Your task to perform on an android device: Go to accessibility settings Image 0: 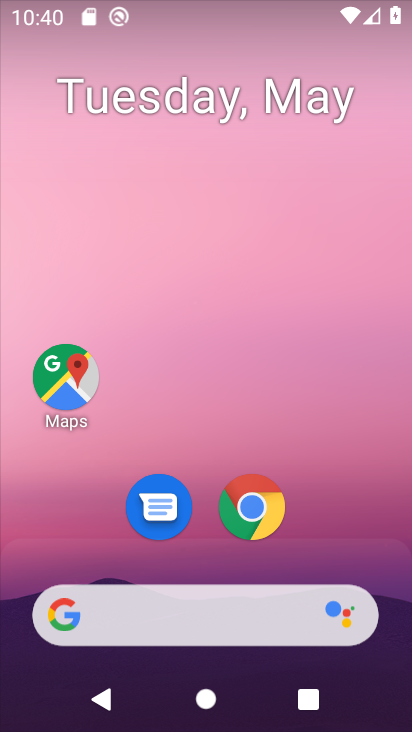
Step 0: drag from (224, 603) to (110, 191)
Your task to perform on an android device: Go to accessibility settings Image 1: 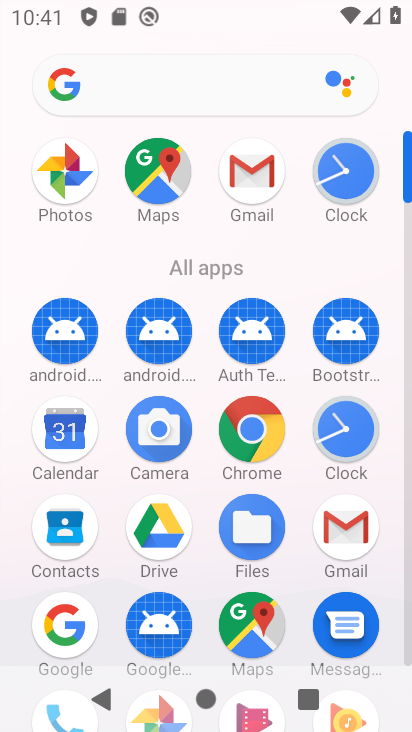
Step 1: drag from (194, 498) to (197, 349)
Your task to perform on an android device: Go to accessibility settings Image 2: 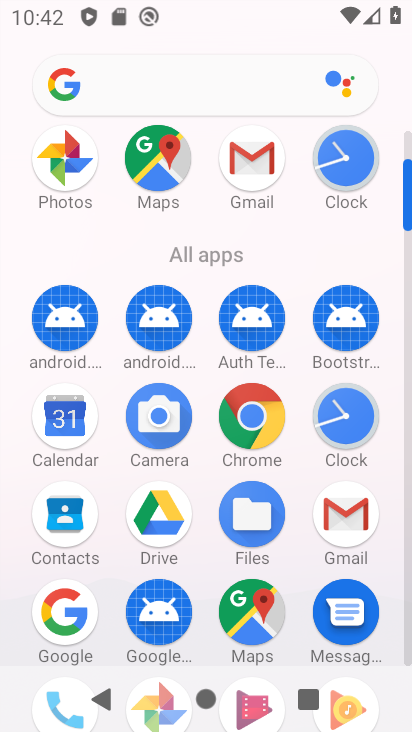
Step 2: drag from (195, 563) to (137, 135)
Your task to perform on an android device: Go to accessibility settings Image 3: 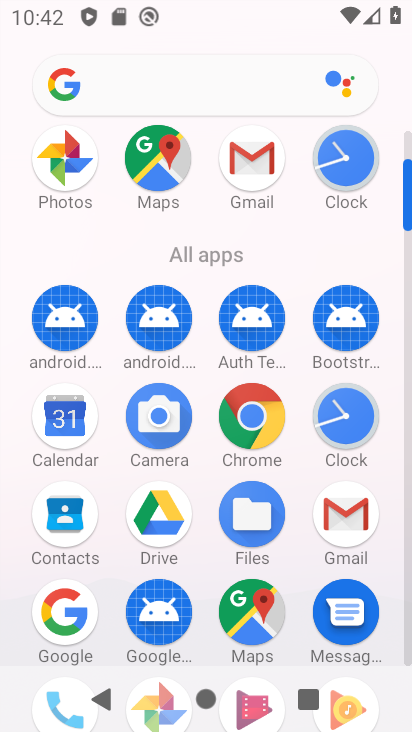
Step 3: drag from (212, 533) to (182, 104)
Your task to perform on an android device: Go to accessibility settings Image 4: 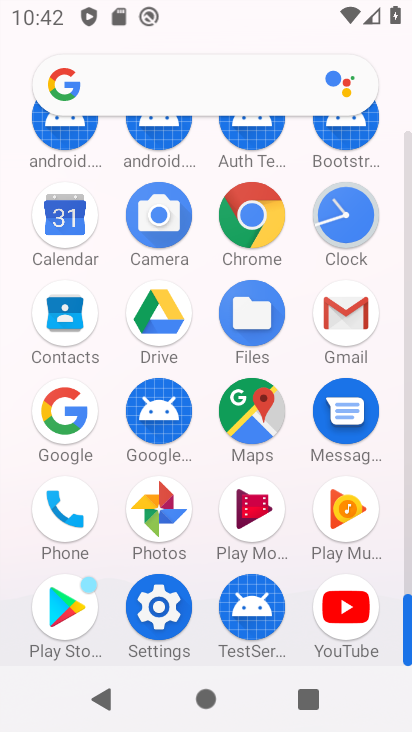
Step 4: click (169, 615)
Your task to perform on an android device: Go to accessibility settings Image 5: 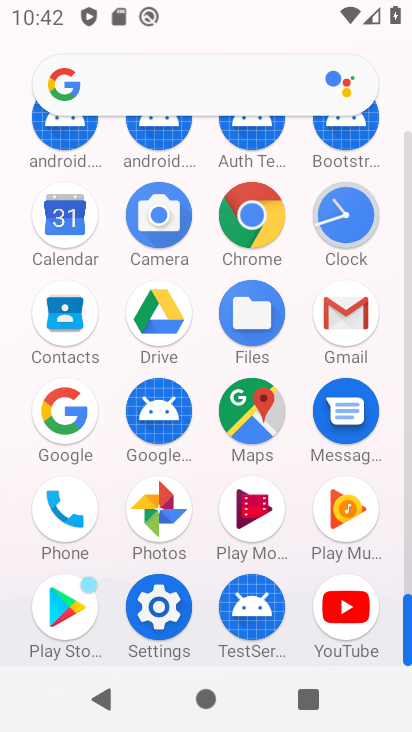
Step 5: click (169, 615)
Your task to perform on an android device: Go to accessibility settings Image 6: 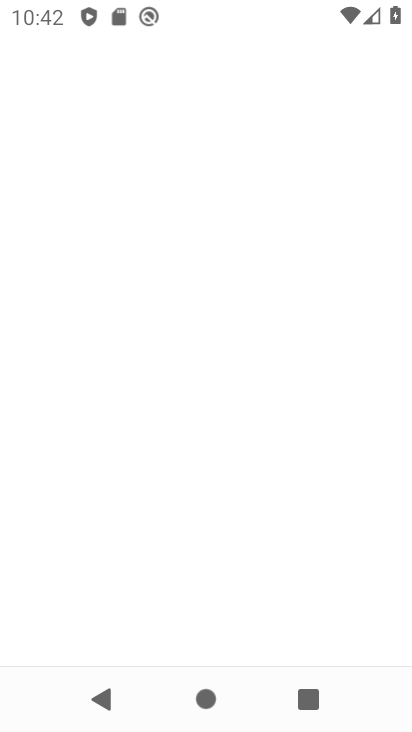
Step 6: click (142, 598)
Your task to perform on an android device: Go to accessibility settings Image 7: 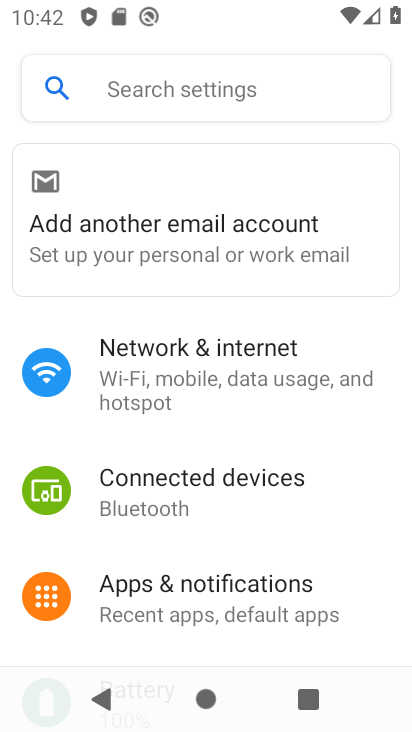
Step 7: drag from (199, 587) to (183, 223)
Your task to perform on an android device: Go to accessibility settings Image 8: 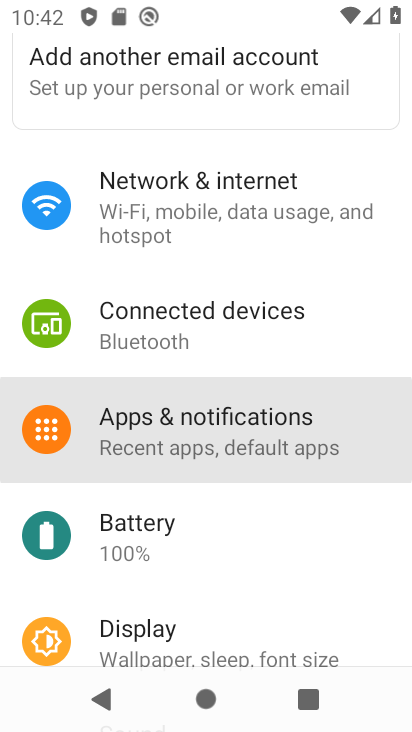
Step 8: drag from (183, 420) to (161, 169)
Your task to perform on an android device: Go to accessibility settings Image 9: 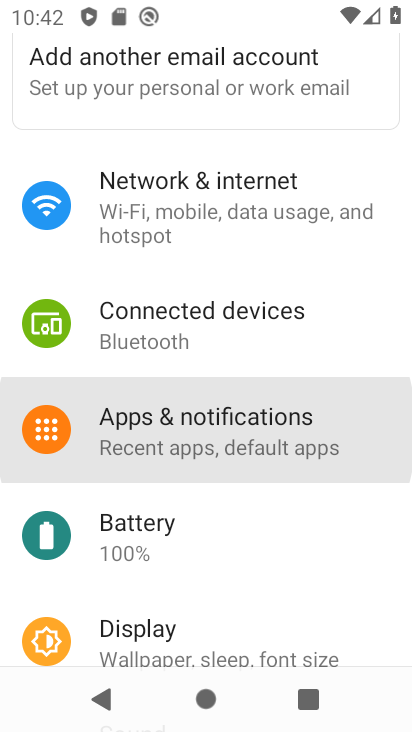
Step 9: drag from (164, 423) to (182, 181)
Your task to perform on an android device: Go to accessibility settings Image 10: 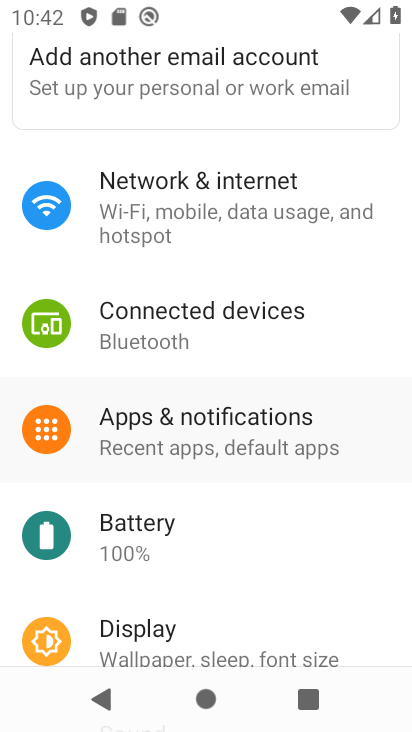
Step 10: drag from (171, 285) to (171, 196)
Your task to perform on an android device: Go to accessibility settings Image 11: 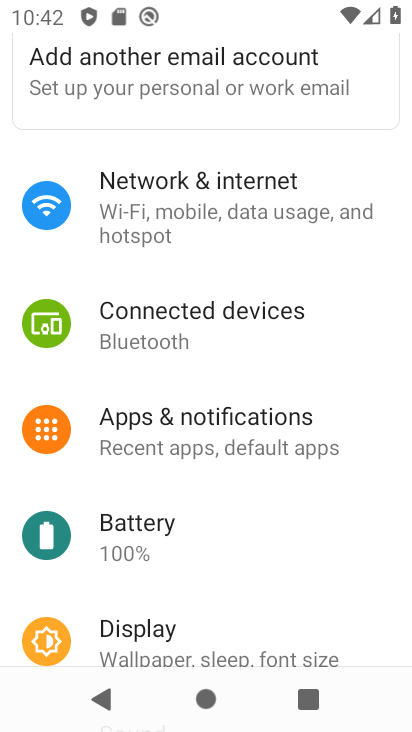
Step 11: drag from (176, 544) to (194, 249)
Your task to perform on an android device: Go to accessibility settings Image 12: 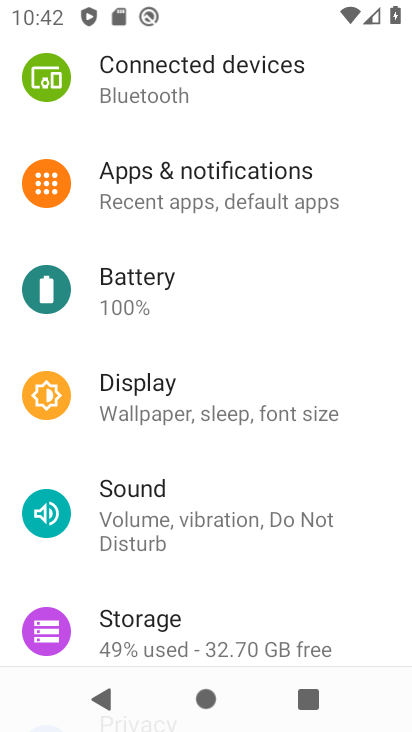
Step 12: drag from (201, 434) to (231, 215)
Your task to perform on an android device: Go to accessibility settings Image 13: 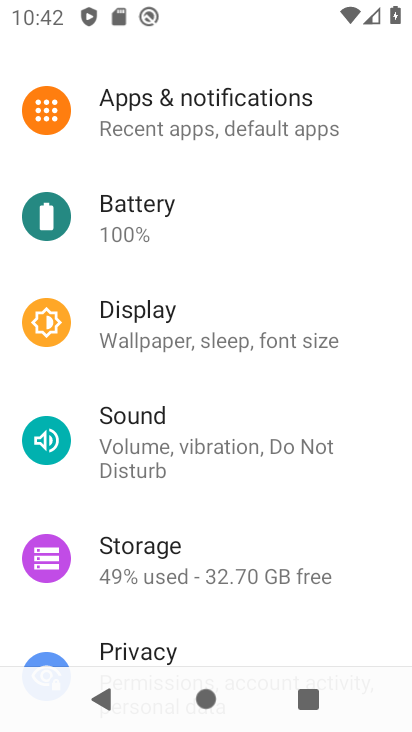
Step 13: drag from (230, 434) to (230, 243)
Your task to perform on an android device: Go to accessibility settings Image 14: 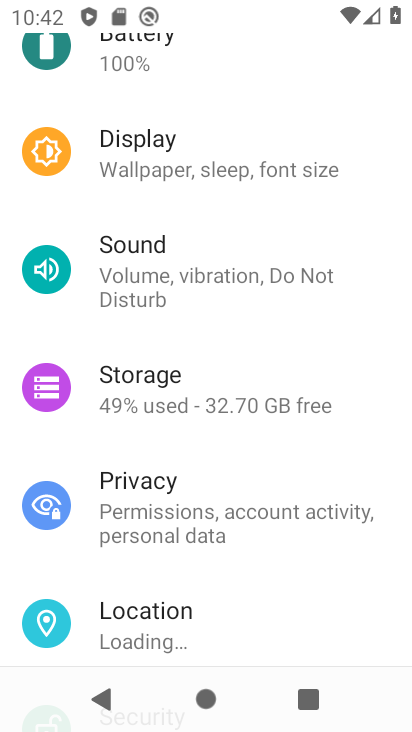
Step 14: drag from (169, 397) to (167, 177)
Your task to perform on an android device: Go to accessibility settings Image 15: 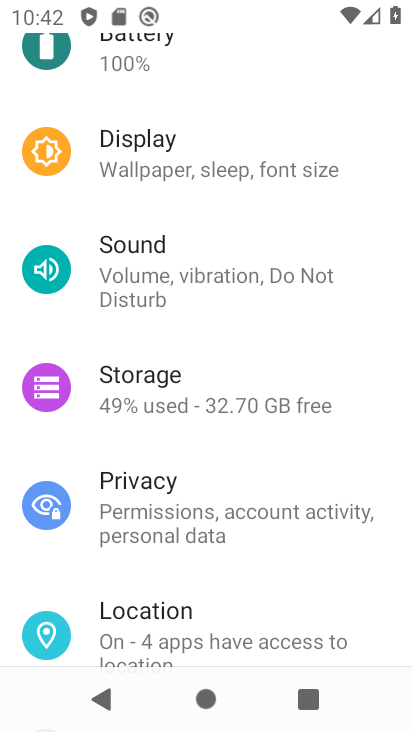
Step 15: drag from (179, 523) to (175, 165)
Your task to perform on an android device: Go to accessibility settings Image 16: 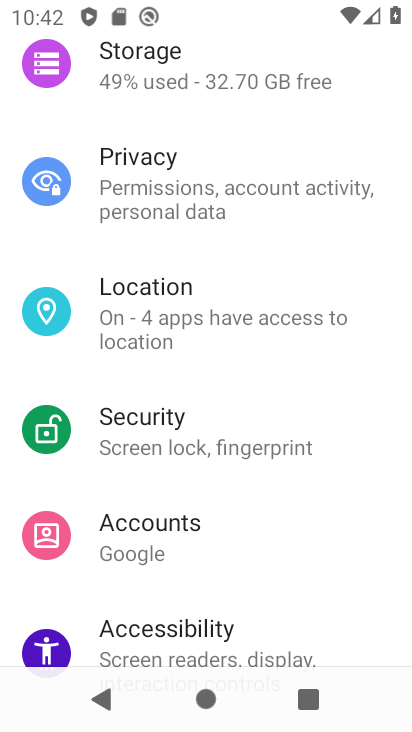
Step 16: drag from (212, 480) to (188, 310)
Your task to perform on an android device: Go to accessibility settings Image 17: 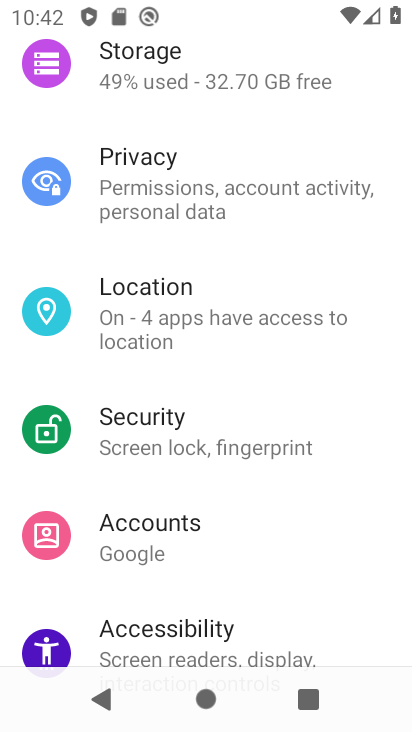
Step 17: drag from (212, 507) to (192, 101)
Your task to perform on an android device: Go to accessibility settings Image 18: 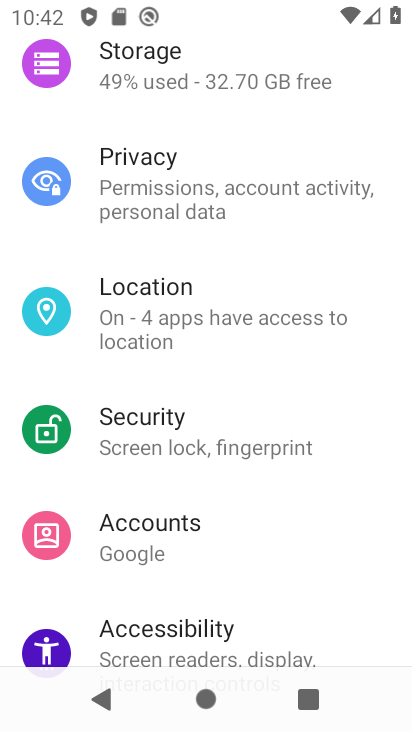
Step 18: click (170, 616)
Your task to perform on an android device: Go to accessibility settings Image 19: 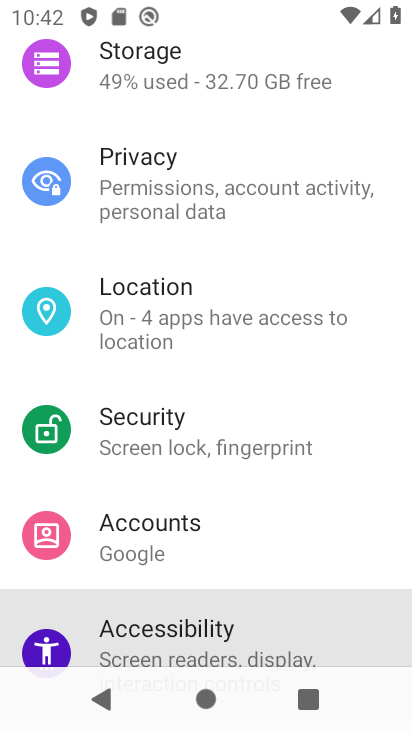
Step 19: click (168, 613)
Your task to perform on an android device: Go to accessibility settings Image 20: 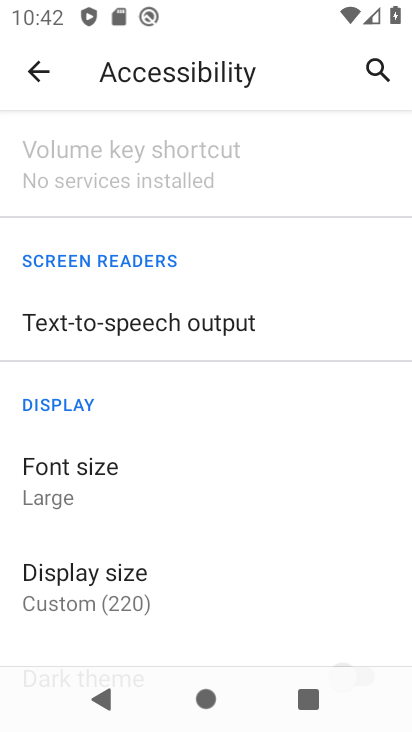
Step 20: click (81, 264)
Your task to perform on an android device: Go to accessibility settings Image 21: 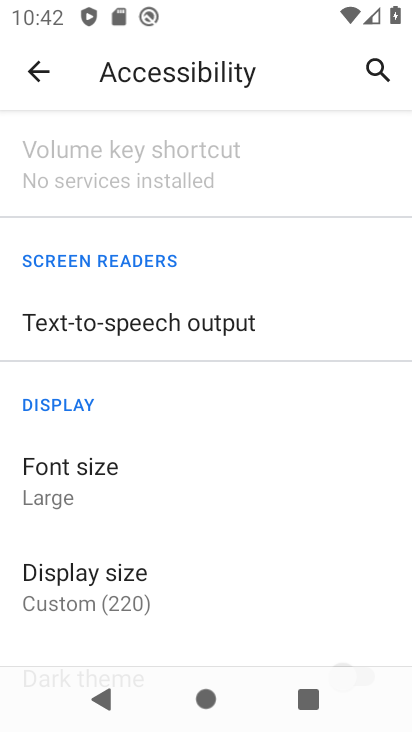
Step 21: task complete